Your task to perform on an android device: Open Chrome and go to settings Image 0: 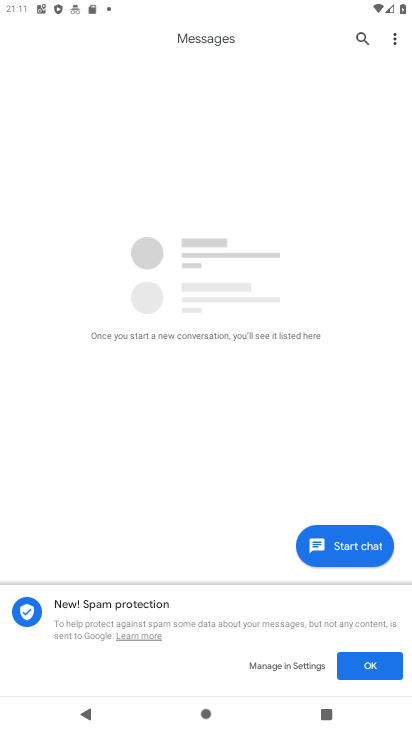
Step 0: press home button
Your task to perform on an android device: Open Chrome and go to settings Image 1: 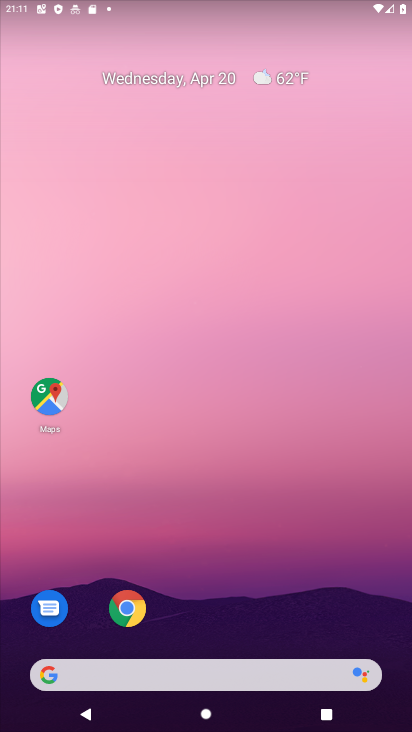
Step 1: click (126, 602)
Your task to perform on an android device: Open Chrome and go to settings Image 2: 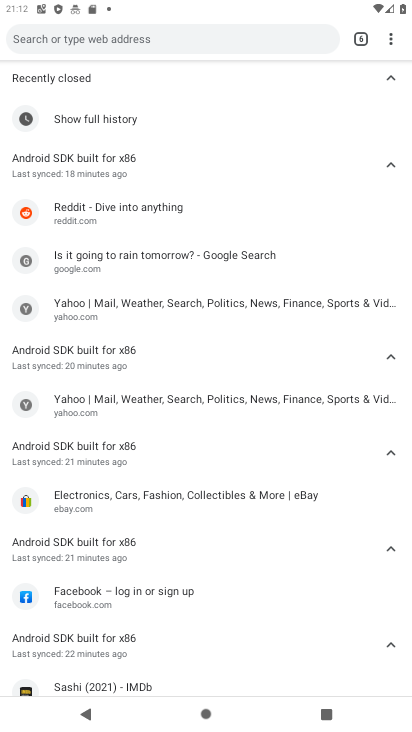
Step 2: task complete